Your task to perform on an android device: Open ESPN.com Image 0: 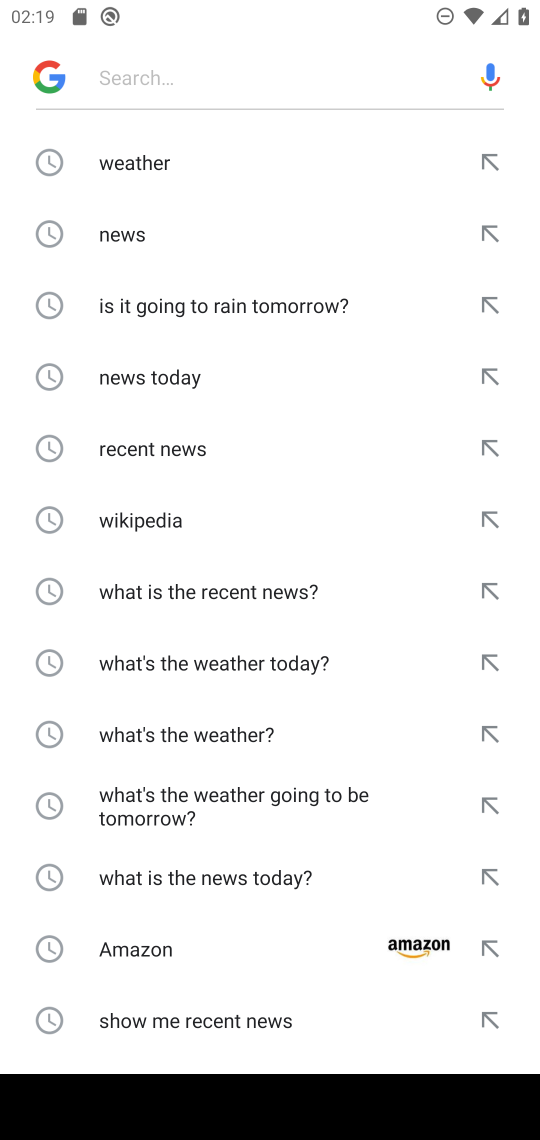
Step 0: press back button
Your task to perform on an android device: Open ESPN.com Image 1: 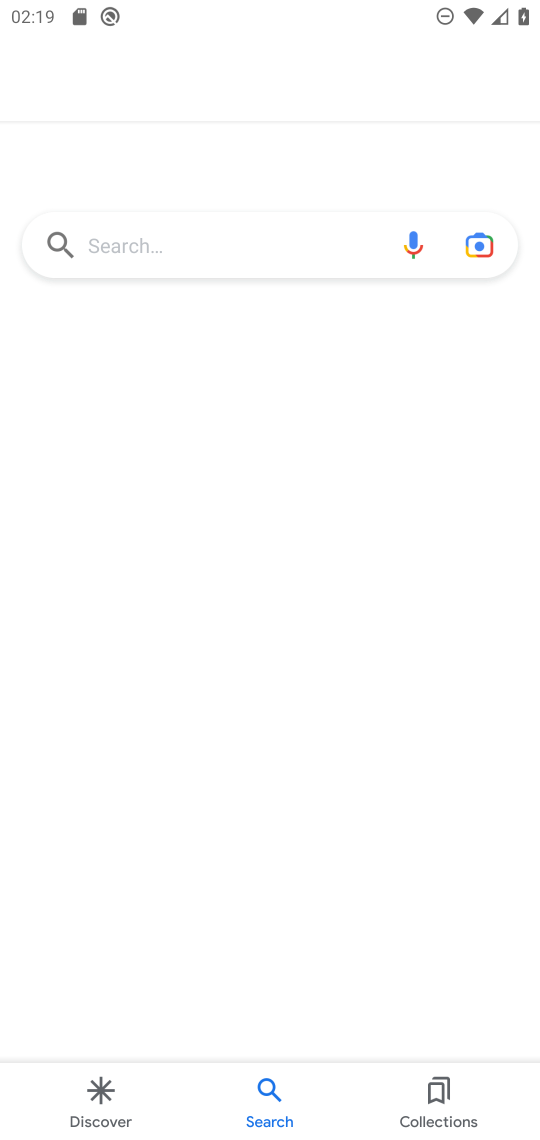
Step 1: press back button
Your task to perform on an android device: Open ESPN.com Image 2: 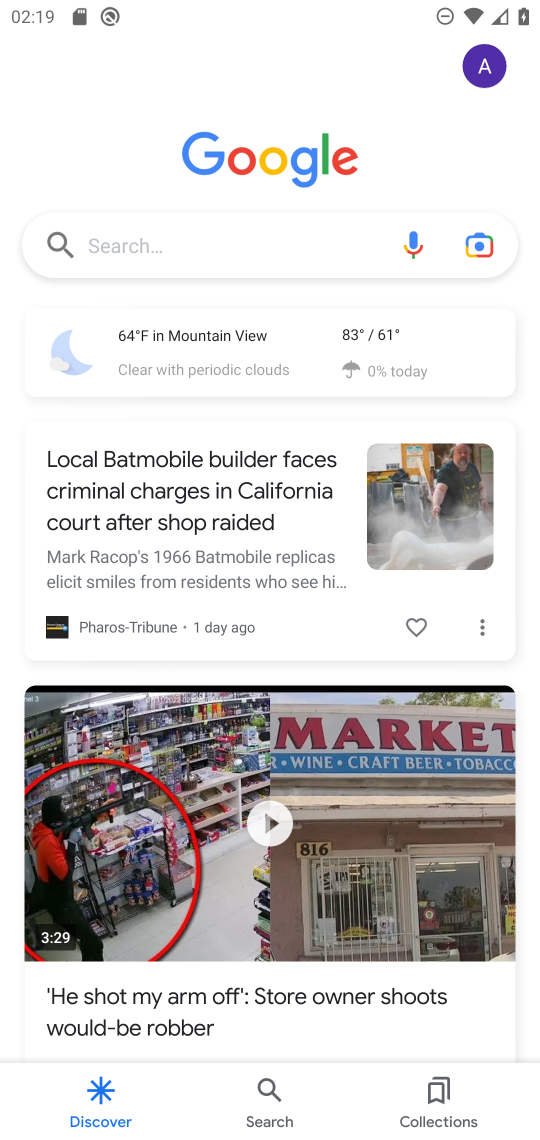
Step 2: press home button
Your task to perform on an android device: Open ESPN.com Image 3: 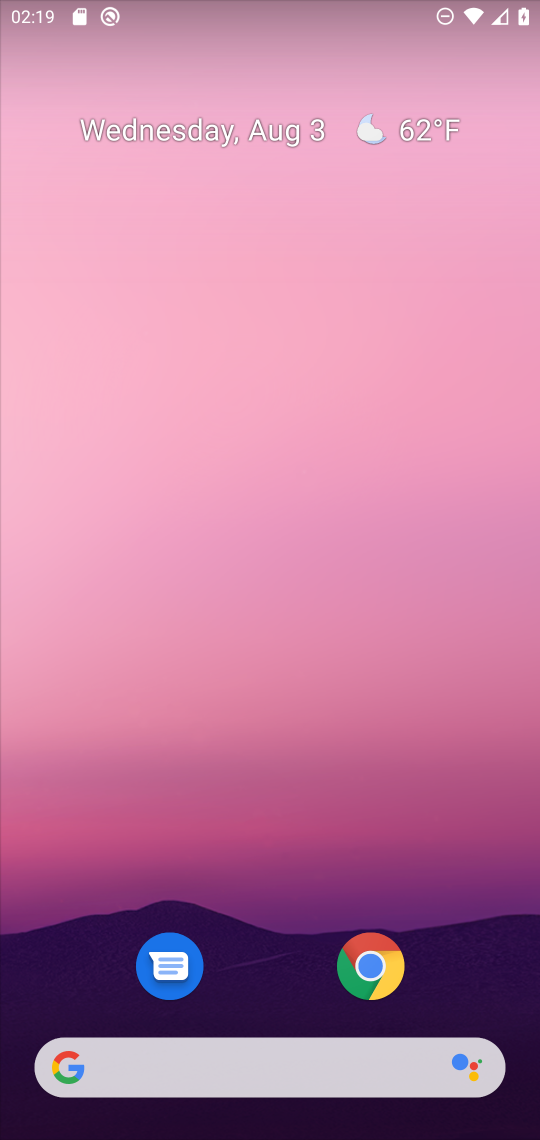
Step 3: click (369, 962)
Your task to perform on an android device: Open ESPN.com Image 4: 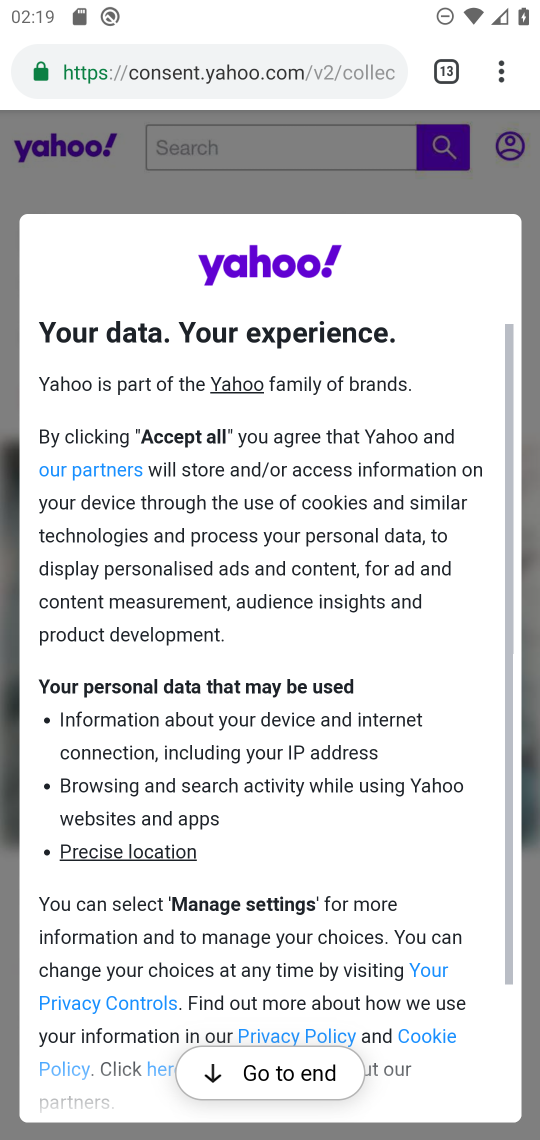
Step 4: click (444, 92)
Your task to perform on an android device: Open ESPN.com Image 5: 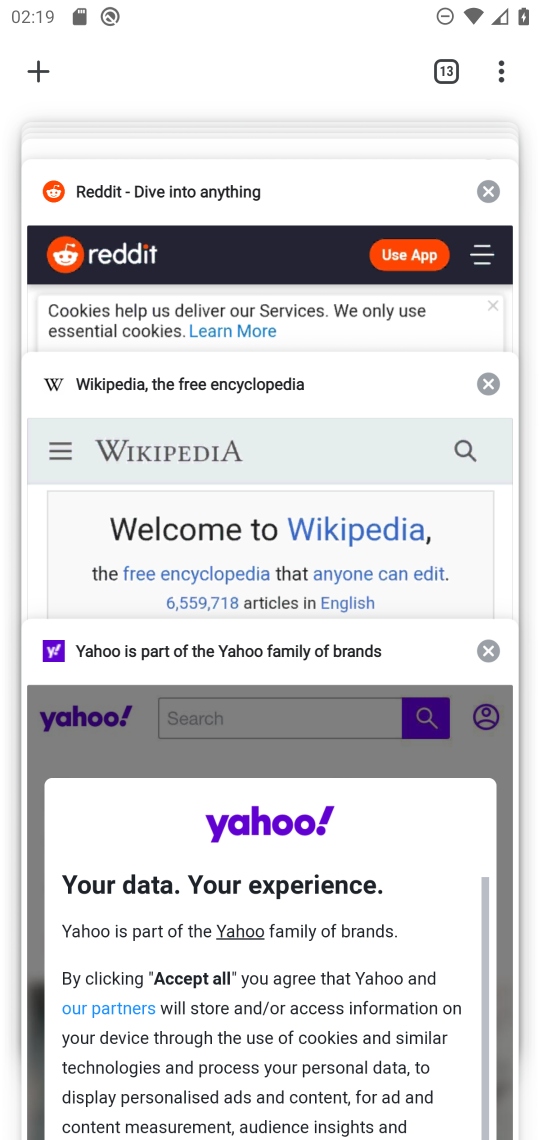
Step 5: click (34, 51)
Your task to perform on an android device: Open ESPN.com Image 6: 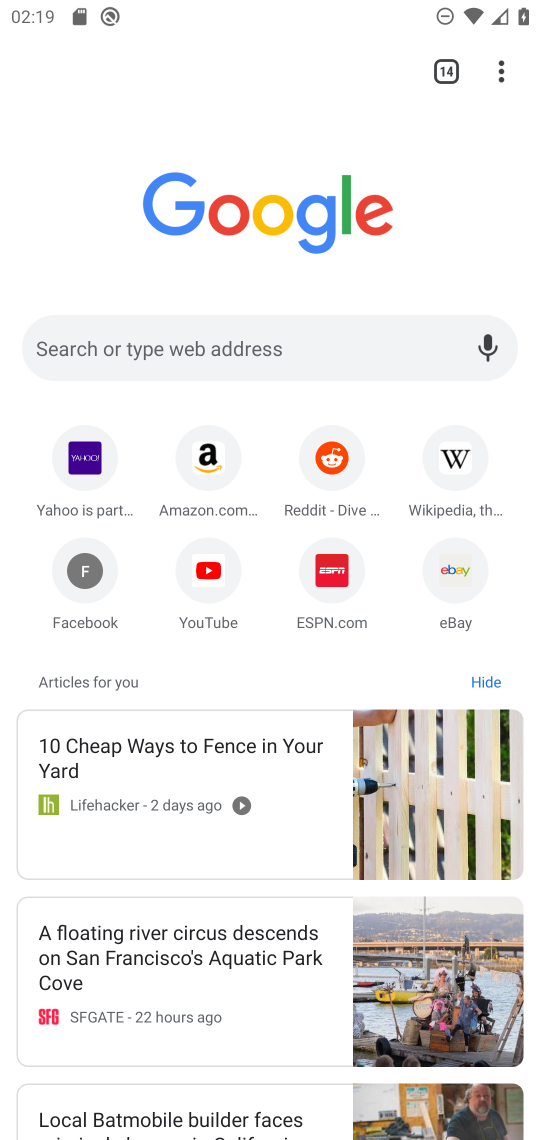
Step 6: click (322, 594)
Your task to perform on an android device: Open ESPN.com Image 7: 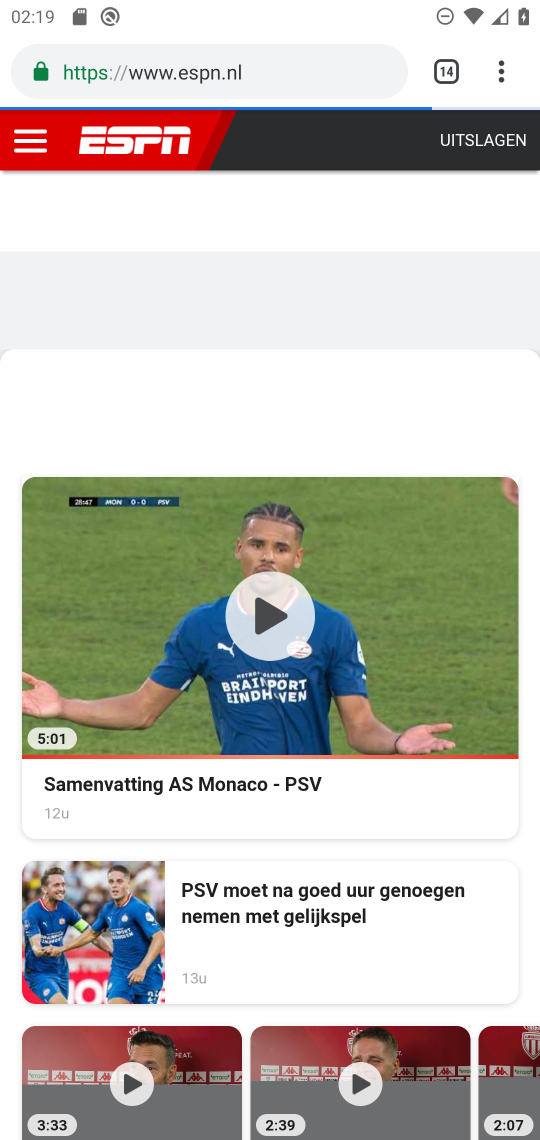
Step 7: task complete